Your task to perform on an android device: Open internet settings Image 0: 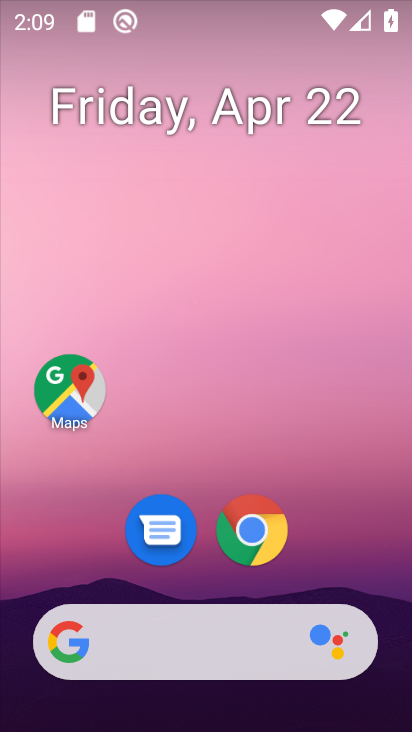
Step 0: drag from (208, 578) to (216, 64)
Your task to perform on an android device: Open internet settings Image 1: 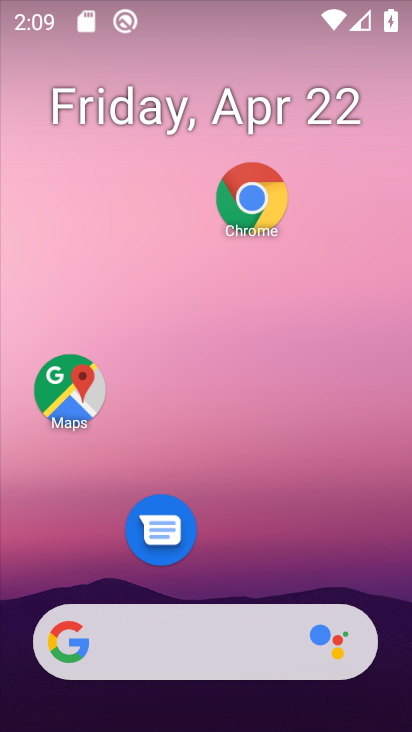
Step 1: drag from (328, 545) to (367, 66)
Your task to perform on an android device: Open internet settings Image 2: 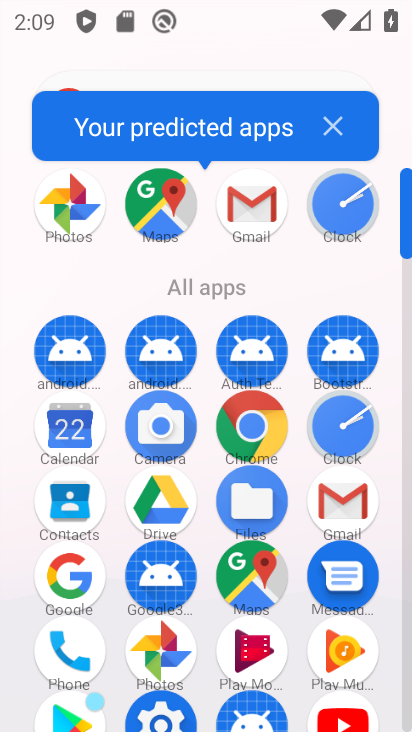
Step 2: drag from (205, 531) to (229, 181)
Your task to perform on an android device: Open internet settings Image 3: 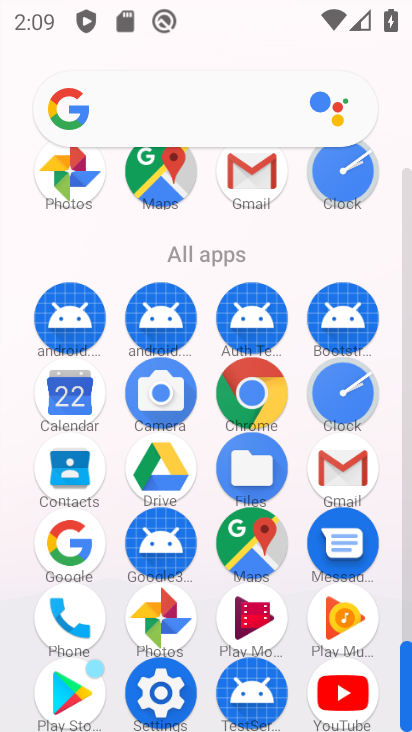
Step 3: click (163, 681)
Your task to perform on an android device: Open internet settings Image 4: 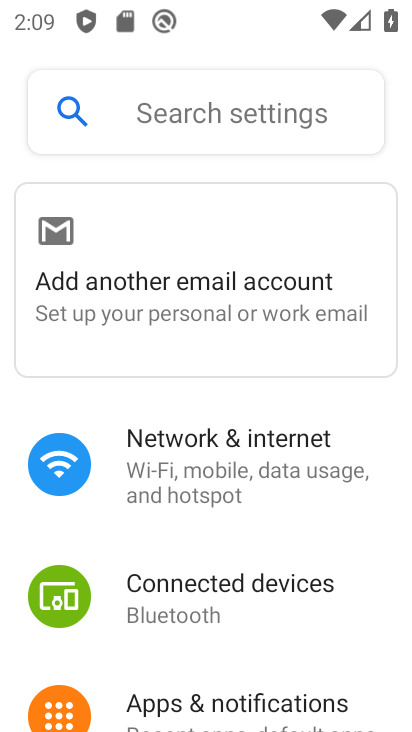
Step 4: click (128, 457)
Your task to perform on an android device: Open internet settings Image 5: 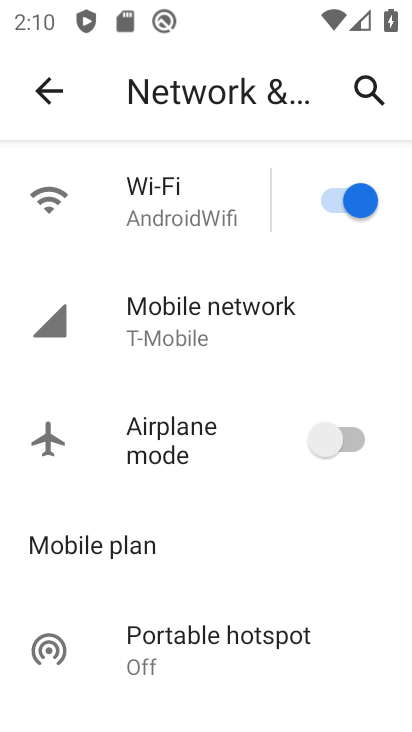
Step 5: drag from (196, 593) to (252, 223)
Your task to perform on an android device: Open internet settings Image 6: 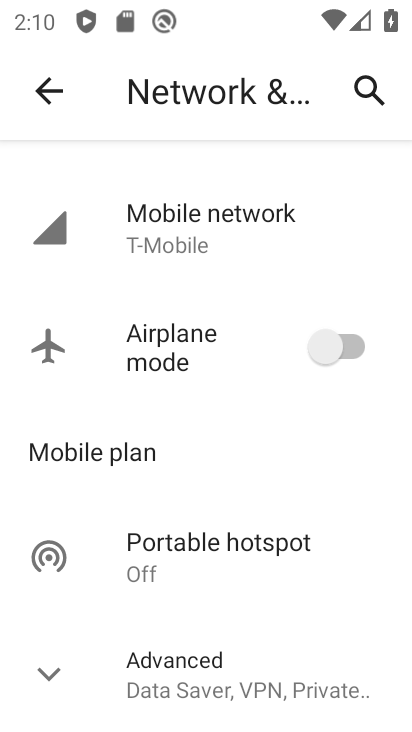
Step 6: click (63, 674)
Your task to perform on an android device: Open internet settings Image 7: 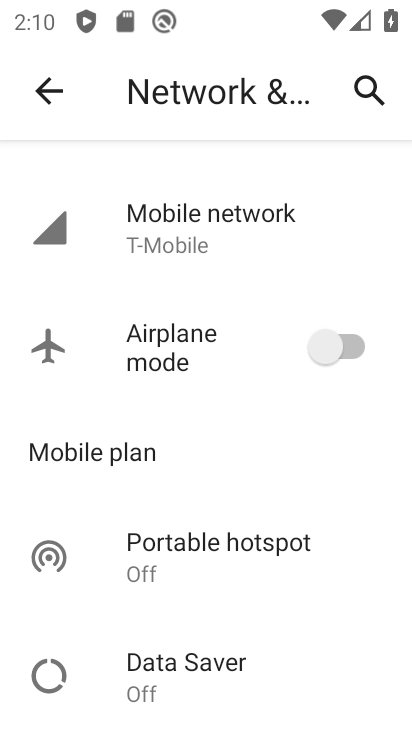
Step 7: task complete